Your task to perform on an android device: turn off location history Image 0: 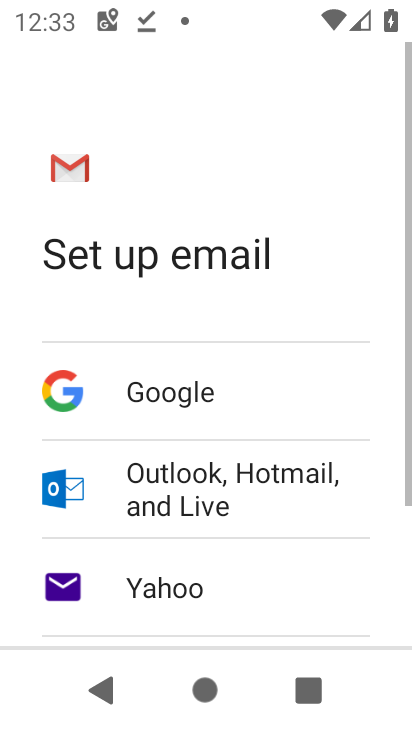
Step 0: press home button
Your task to perform on an android device: turn off location history Image 1: 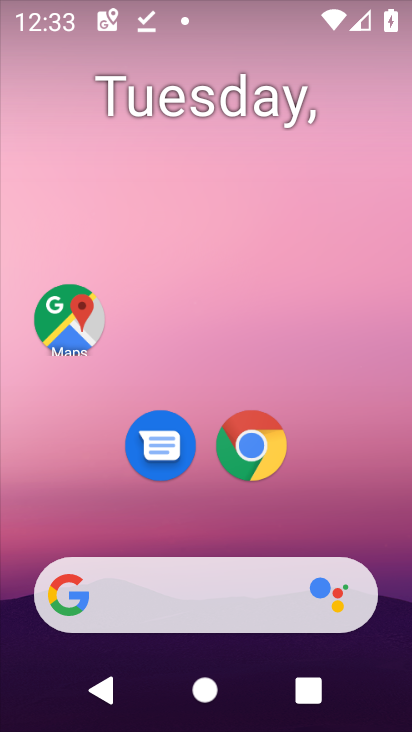
Step 1: click (64, 311)
Your task to perform on an android device: turn off location history Image 2: 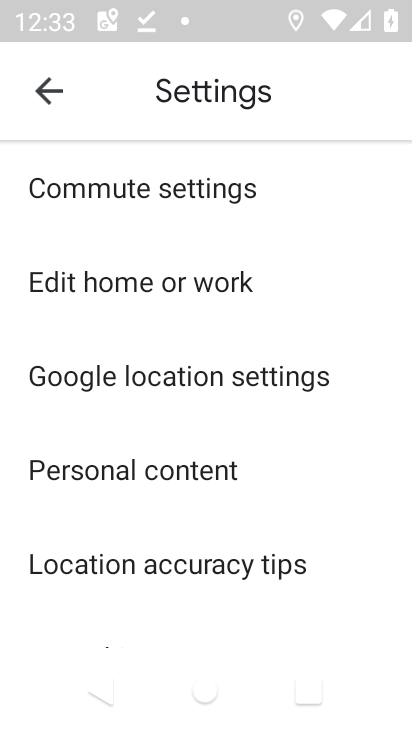
Step 2: click (41, 94)
Your task to perform on an android device: turn off location history Image 3: 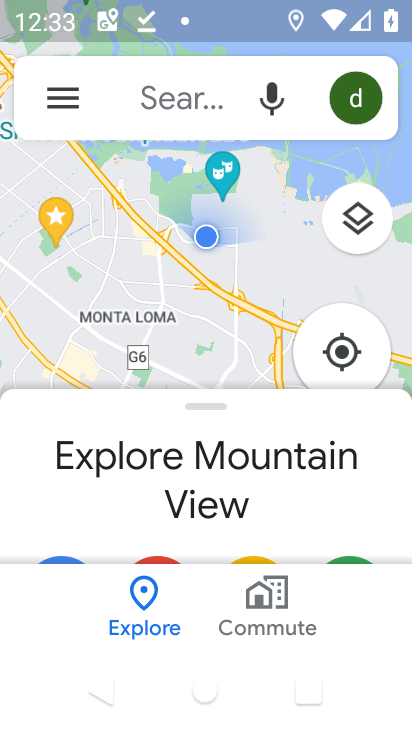
Step 3: click (57, 94)
Your task to perform on an android device: turn off location history Image 4: 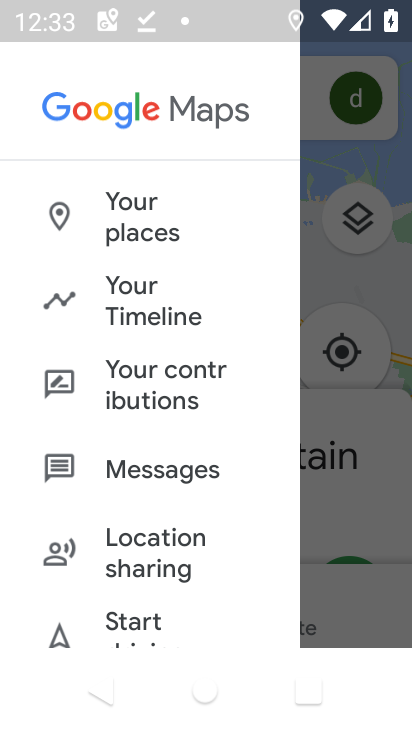
Step 4: click (140, 298)
Your task to perform on an android device: turn off location history Image 5: 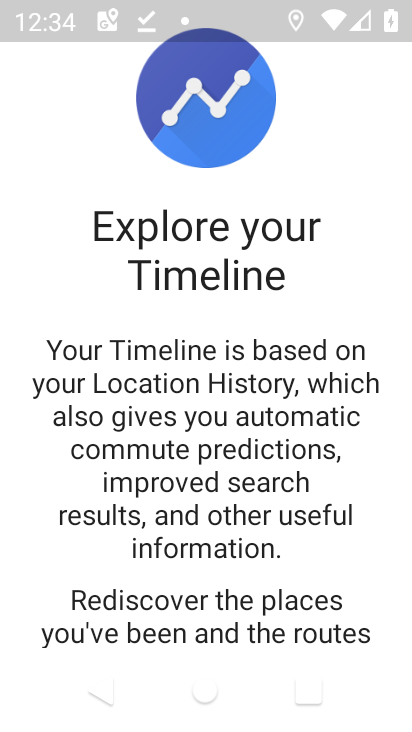
Step 5: drag from (275, 567) to (241, 188)
Your task to perform on an android device: turn off location history Image 6: 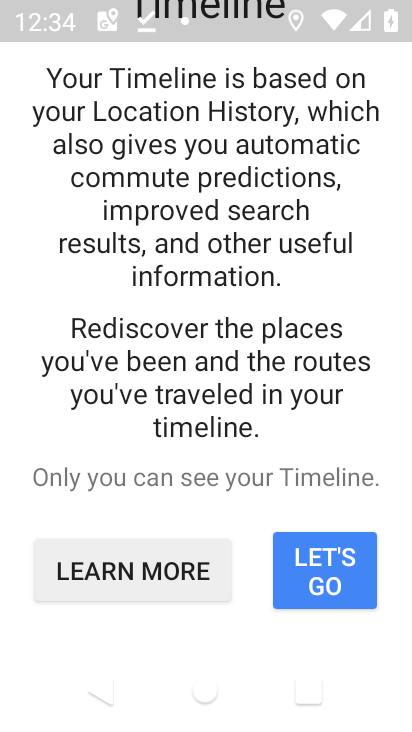
Step 6: click (321, 561)
Your task to perform on an android device: turn off location history Image 7: 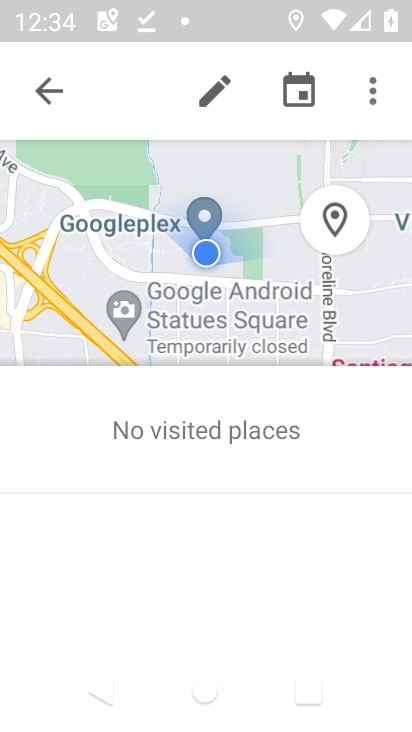
Step 7: click (369, 93)
Your task to perform on an android device: turn off location history Image 8: 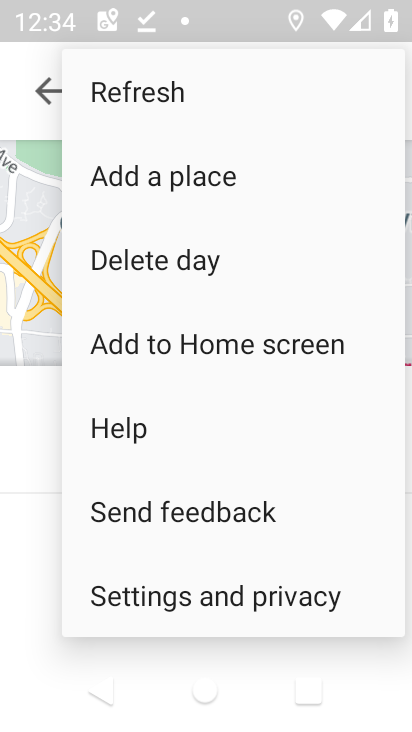
Step 8: click (268, 597)
Your task to perform on an android device: turn off location history Image 9: 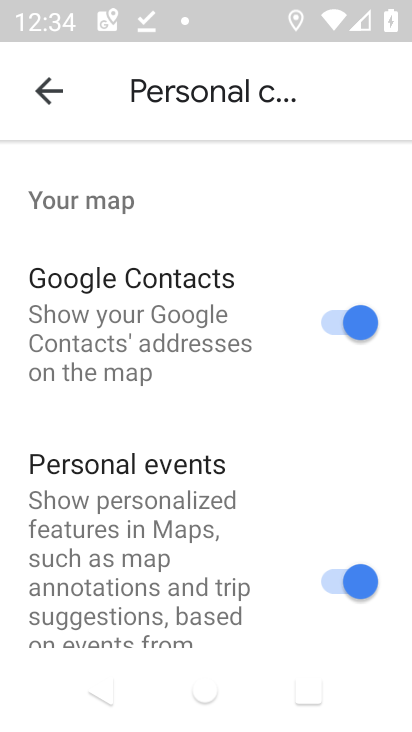
Step 9: drag from (300, 509) to (269, 64)
Your task to perform on an android device: turn off location history Image 10: 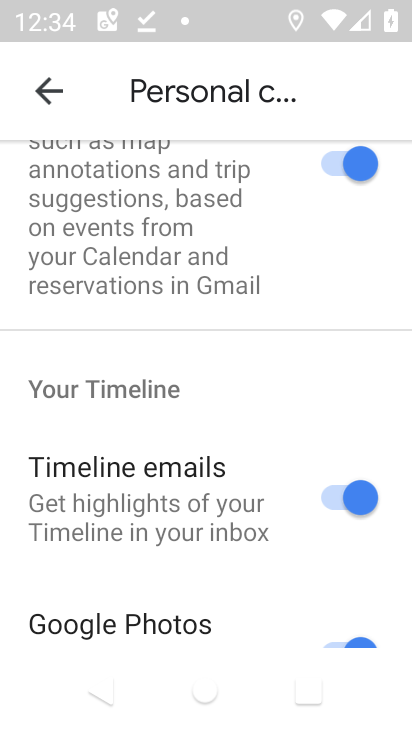
Step 10: drag from (230, 569) to (214, 177)
Your task to perform on an android device: turn off location history Image 11: 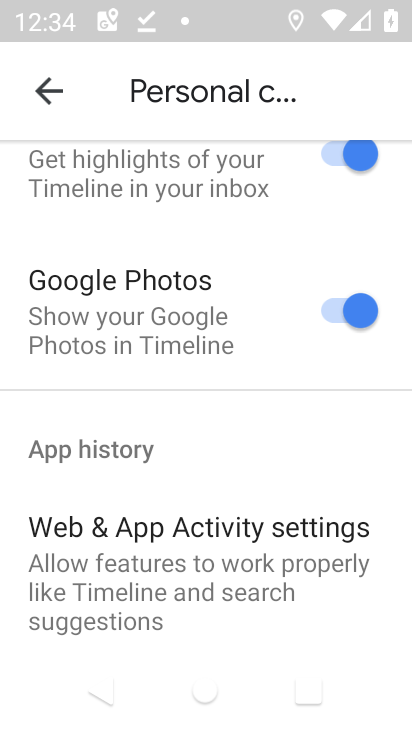
Step 11: drag from (233, 454) to (194, 170)
Your task to perform on an android device: turn off location history Image 12: 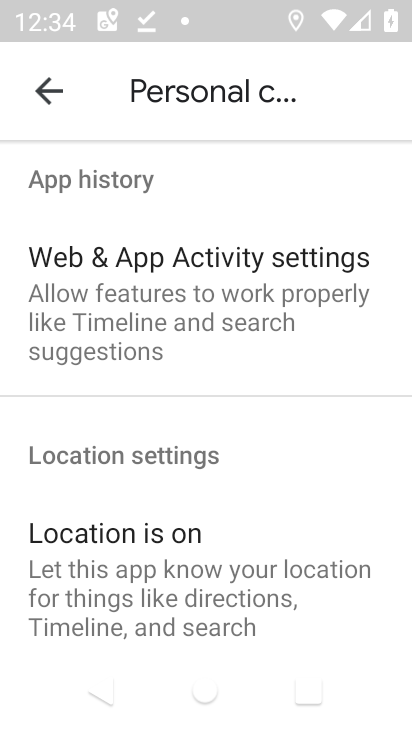
Step 12: drag from (222, 484) to (212, 160)
Your task to perform on an android device: turn off location history Image 13: 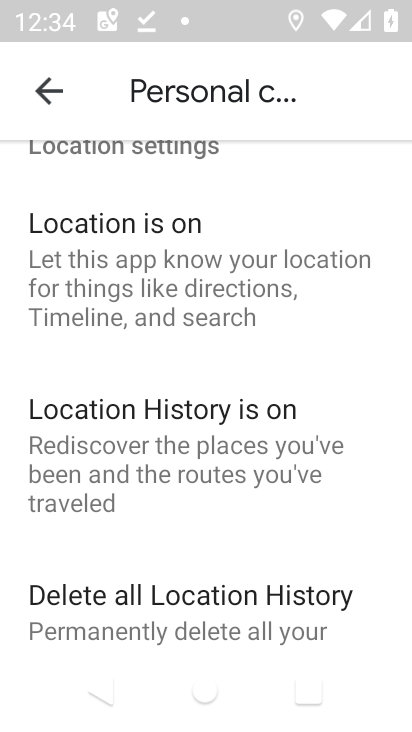
Step 13: drag from (250, 544) to (220, 285)
Your task to perform on an android device: turn off location history Image 14: 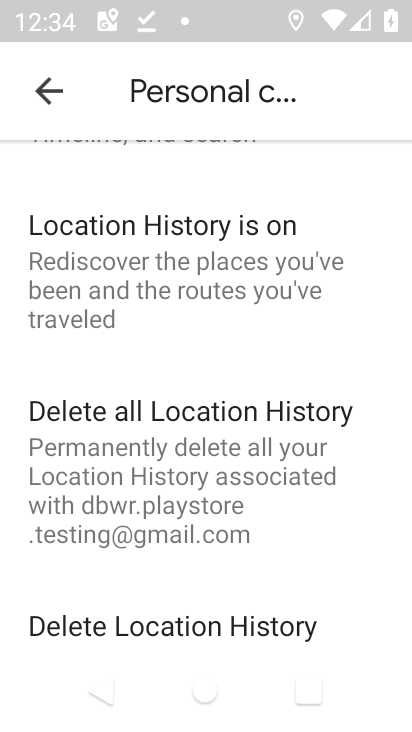
Step 14: click (173, 231)
Your task to perform on an android device: turn off location history Image 15: 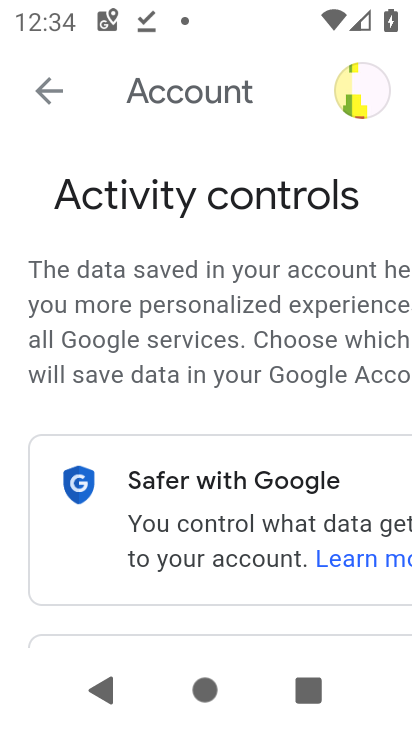
Step 15: drag from (294, 478) to (248, 181)
Your task to perform on an android device: turn off location history Image 16: 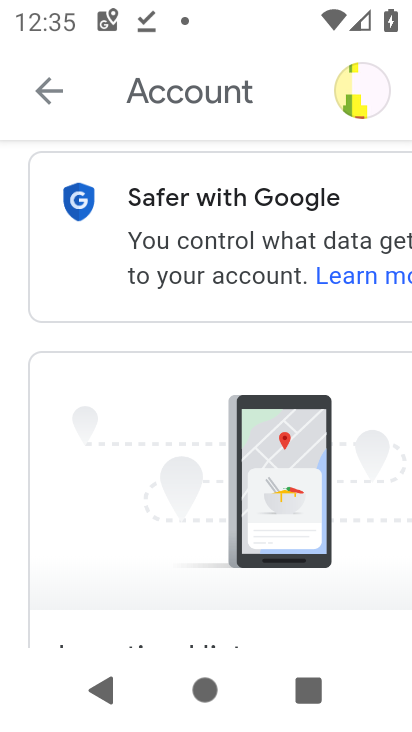
Step 16: drag from (350, 534) to (305, 225)
Your task to perform on an android device: turn off location history Image 17: 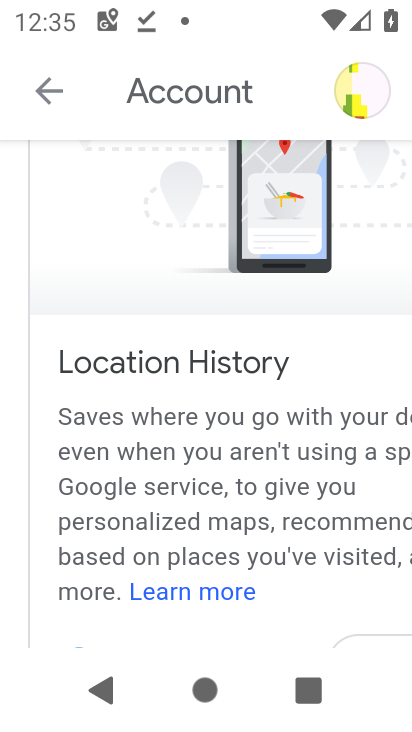
Step 17: drag from (334, 519) to (295, 221)
Your task to perform on an android device: turn off location history Image 18: 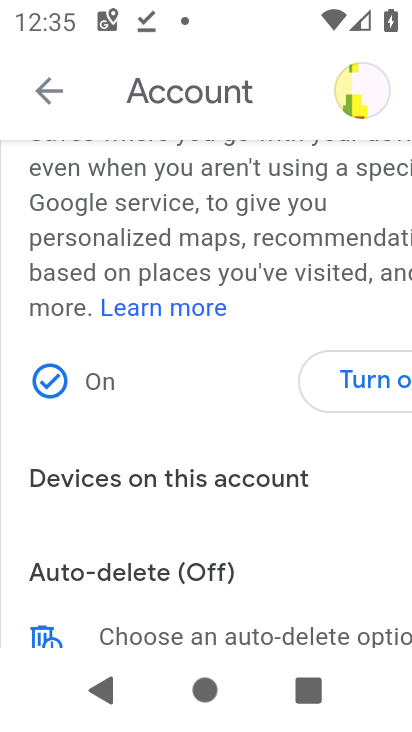
Step 18: click (364, 384)
Your task to perform on an android device: turn off location history Image 19: 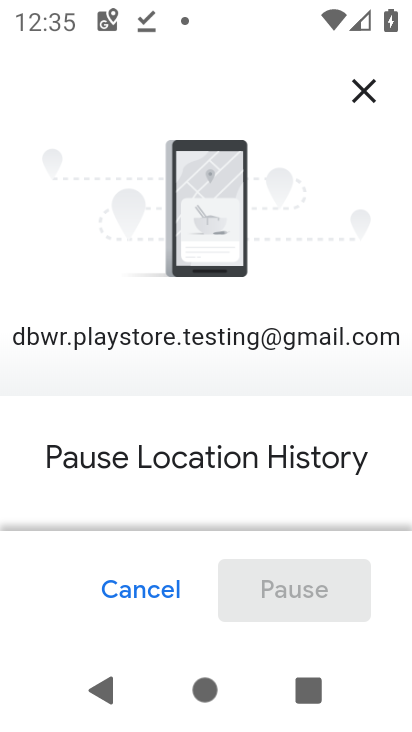
Step 19: drag from (278, 471) to (227, 97)
Your task to perform on an android device: turn off location history Image 20: 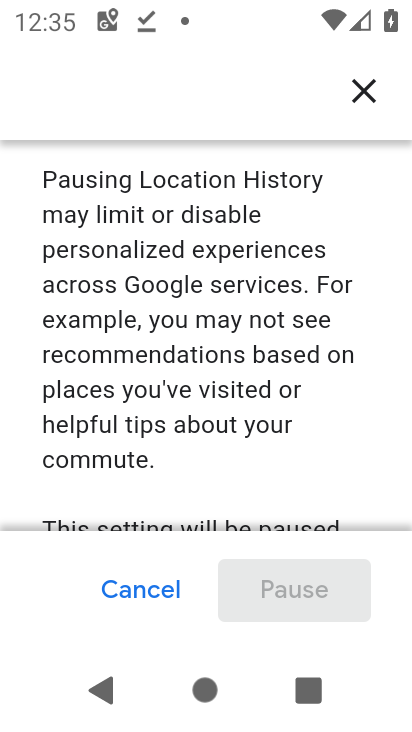
Step 20: drag from (294, 475) to (251, 145)
Your task to perform on an android device: turn off location history Image 21: 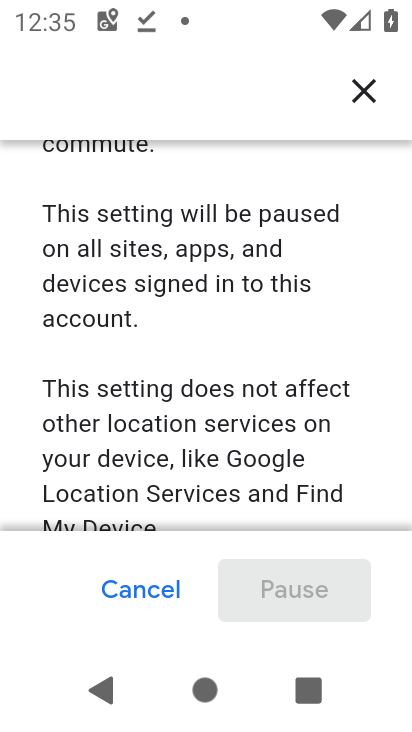
Step 21: drag from (284, 460) to (261, 21)
Your task to perform on an android device: turn off location history Image 22: 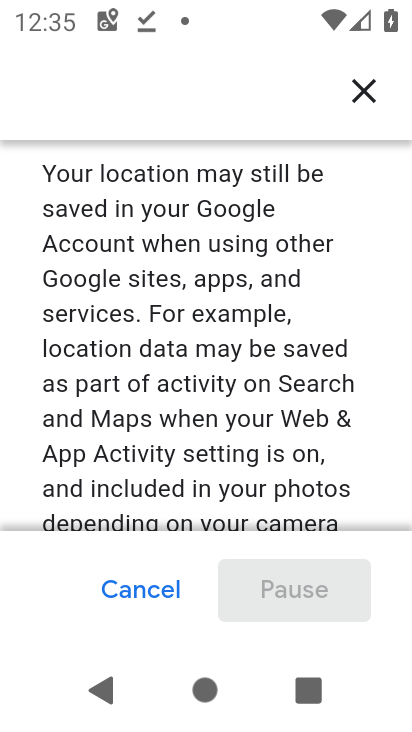
Step 22: drag from (318, 445) to (243, 142)
Your task to perform on an android device: turn off location history Image 23: 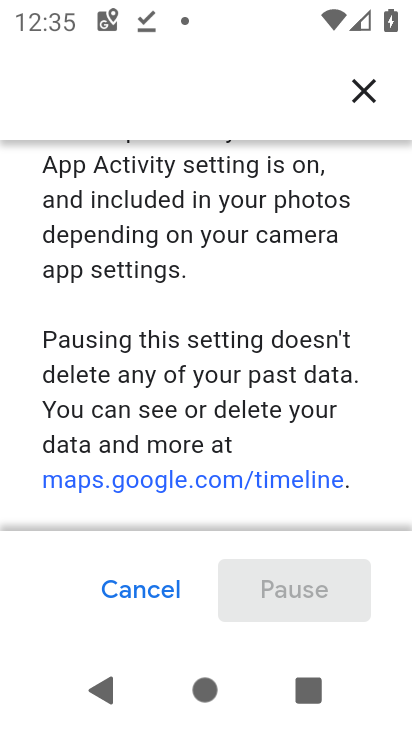
Step 23: drag from (325, 414) to (284, 62)
Your task to perform on an android device: turn off location history Image 24: 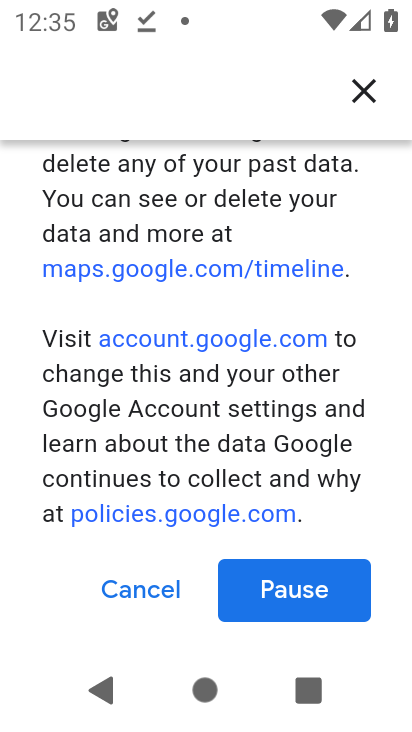
Step 24: click (295, 591)
Your task to perform on an android device: turn off location history Image 25: 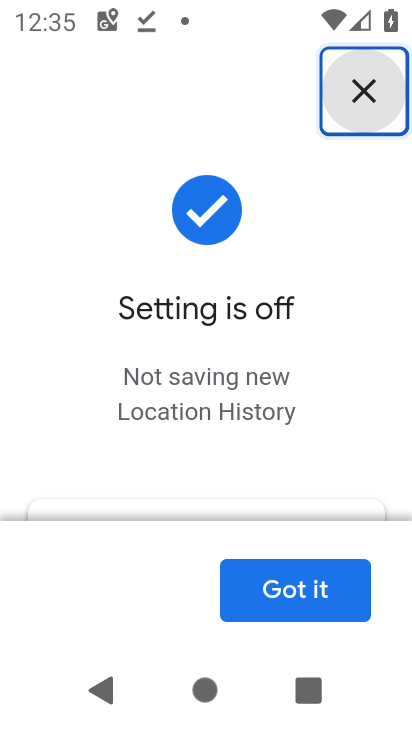
Step 25: click (295, 591)
Your task to perform on an android device: turn off location history Image 26: 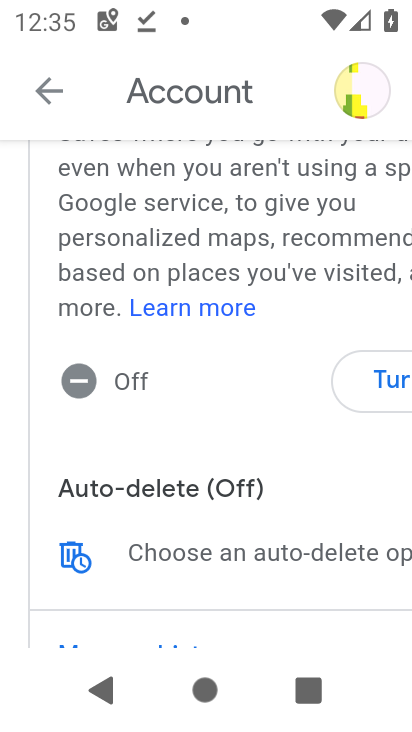
Step 26: task complete